Your task to perform on an android device: What's on my calendar today? Image 0: 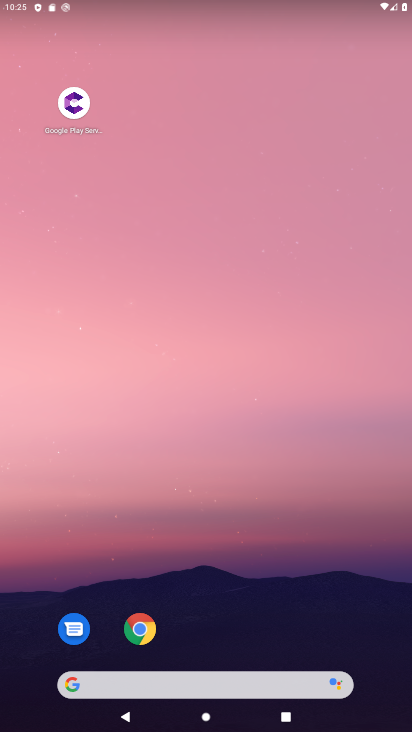
Step 0: drag from (194, 673) to (246, 175)
Your task to perform on an android device: What's on my calendar today? Image 1: 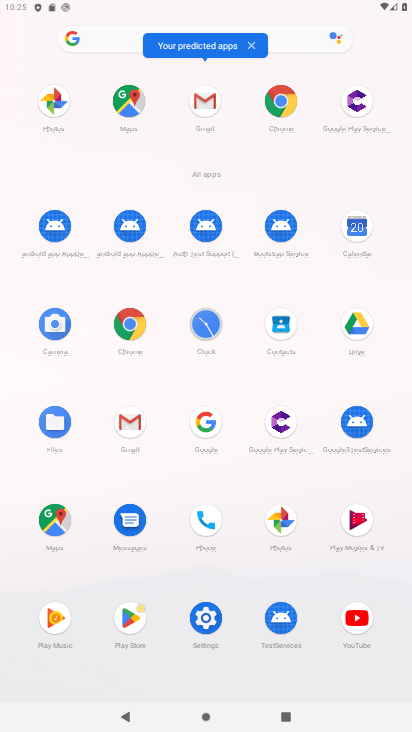
Step 1: click (348, 227)
Your task to perform on an android device: What's on my calendar today? Image 2: 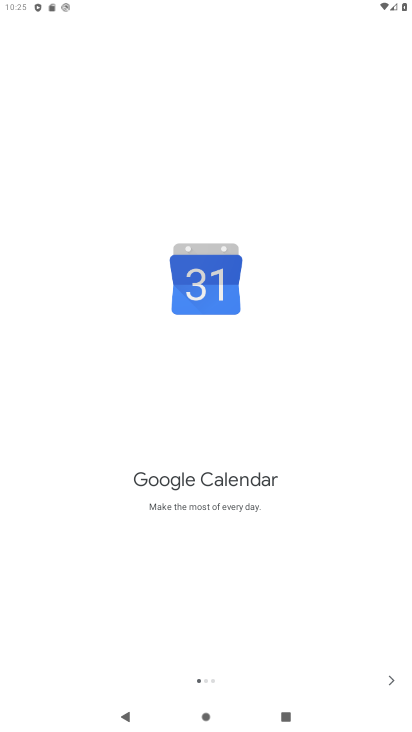
Step 2: click (398, 682)
Your task to perform on an android device: What's on my calendar today? Image 3: 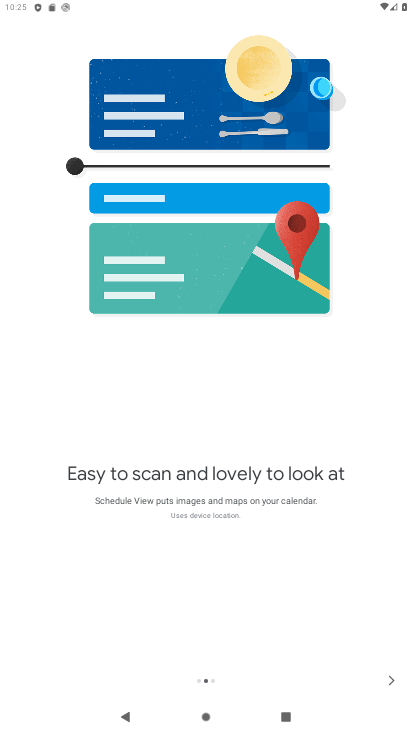
Step 3: click (394, 679)
Your task to perform on an android device: What's on my calendar today? Image 4: 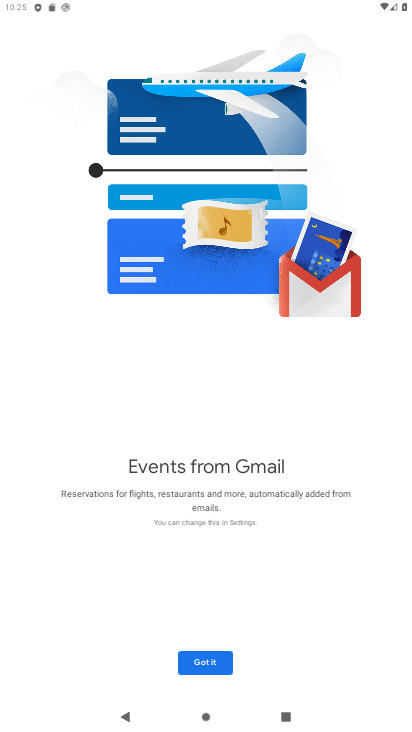
Step 4: click (201, 659)
Your task to perform on an android device: What's on my calendar today? Image 5: 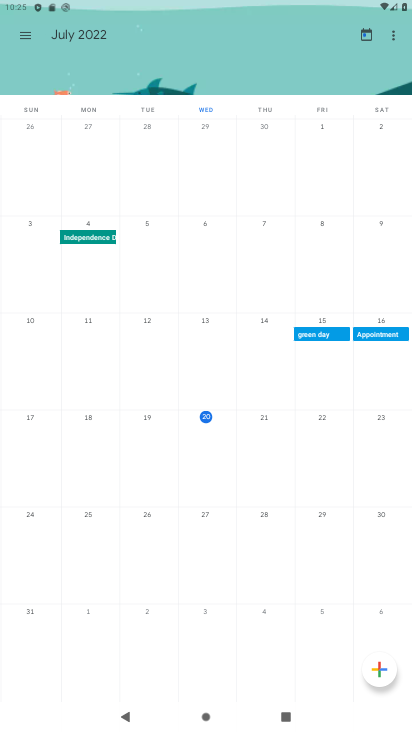
Step 5: click (207, 421)
Your task to perform on an android device: What's on my calendar today? Image 6: 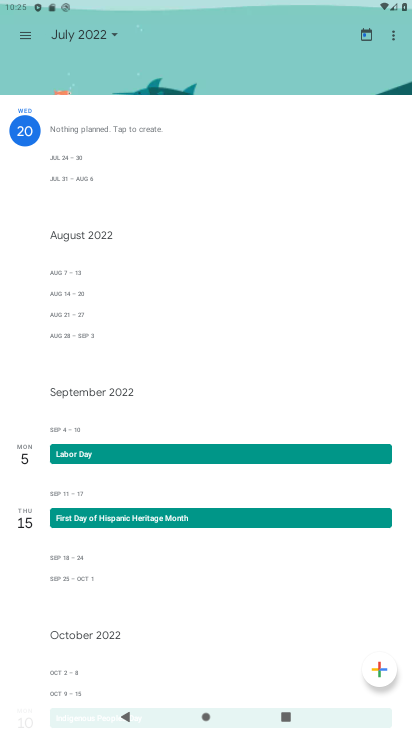
Step 6: task complete